Your task to perform on an android device: Go to privacy settings Image 0: 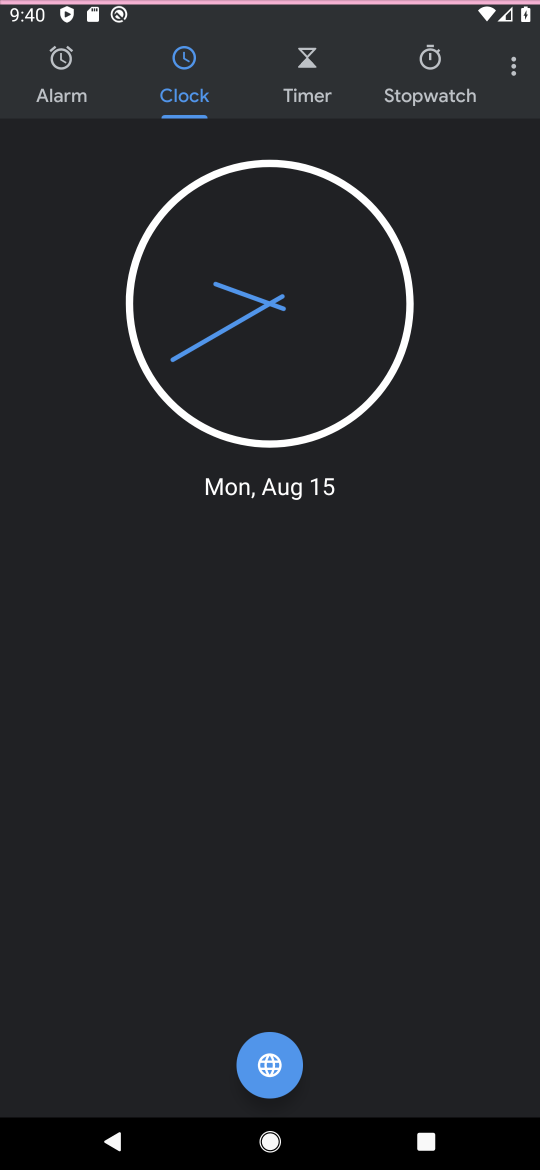
Step 0: press home button
Your task to perform on an android device: Go to privacy settings Image 1: 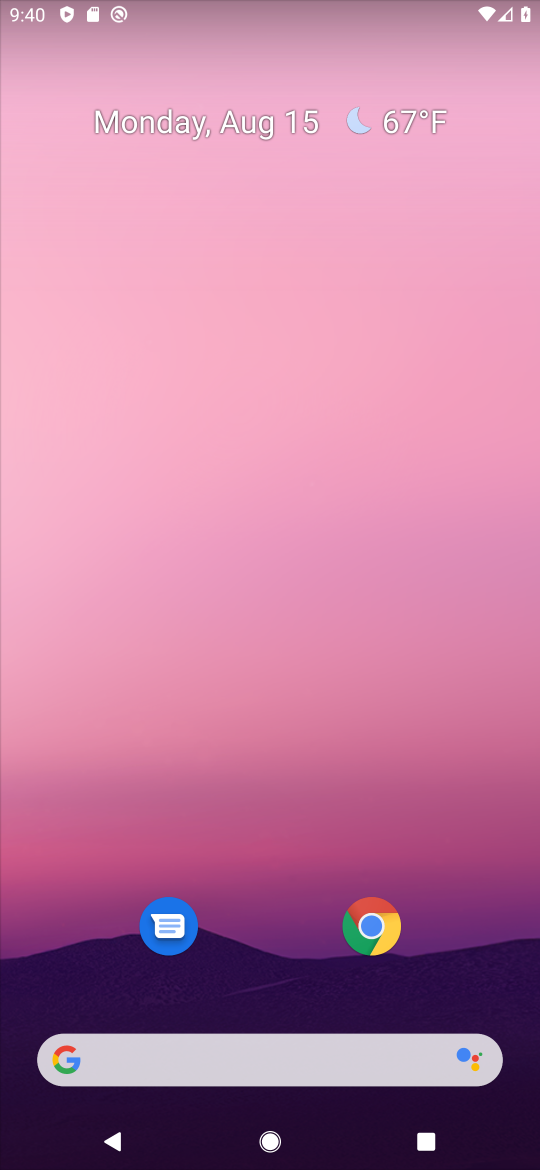
Step 1: press home button
Your task to perform on an android device: Go to privacy settings Image 2: 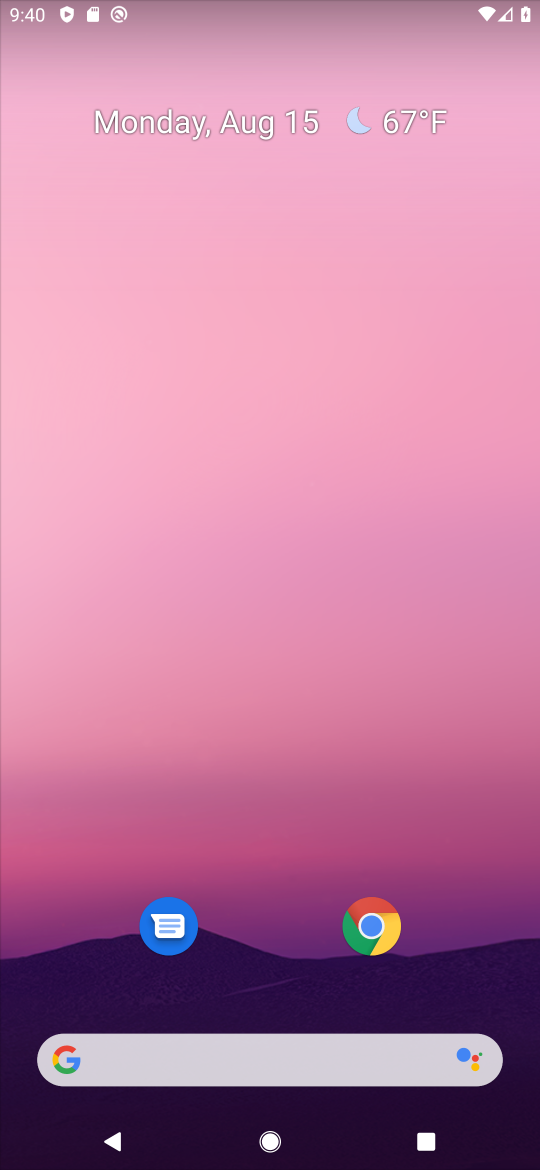
Step 2: drag from (265, 942) to (82, 42)
Your task to perform on an android device: Go to privacy settings Image 3: 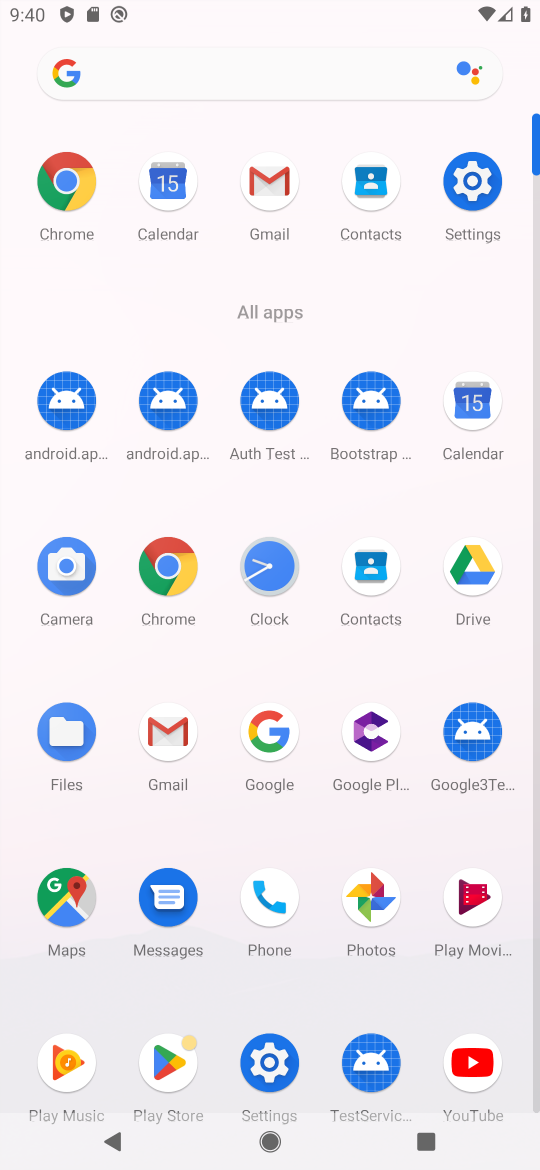
Step 3: click (470, 177)
Your task to perform on an android device: Go to privacy settings Image 4: 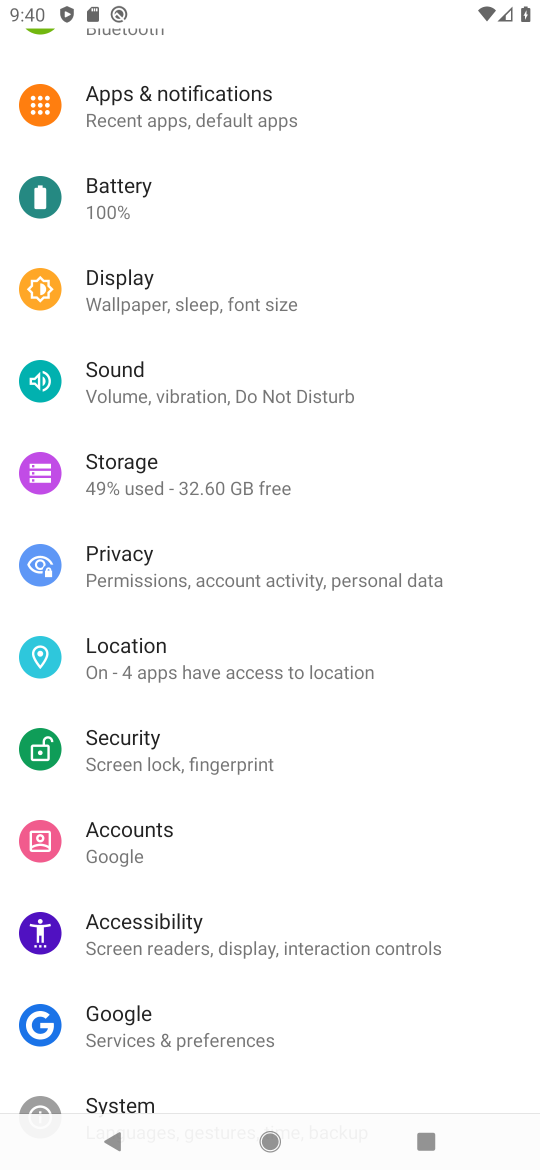
Step 4: click (263, 556)
Your task to perform on an android device: Go to privacy settings Image 5: 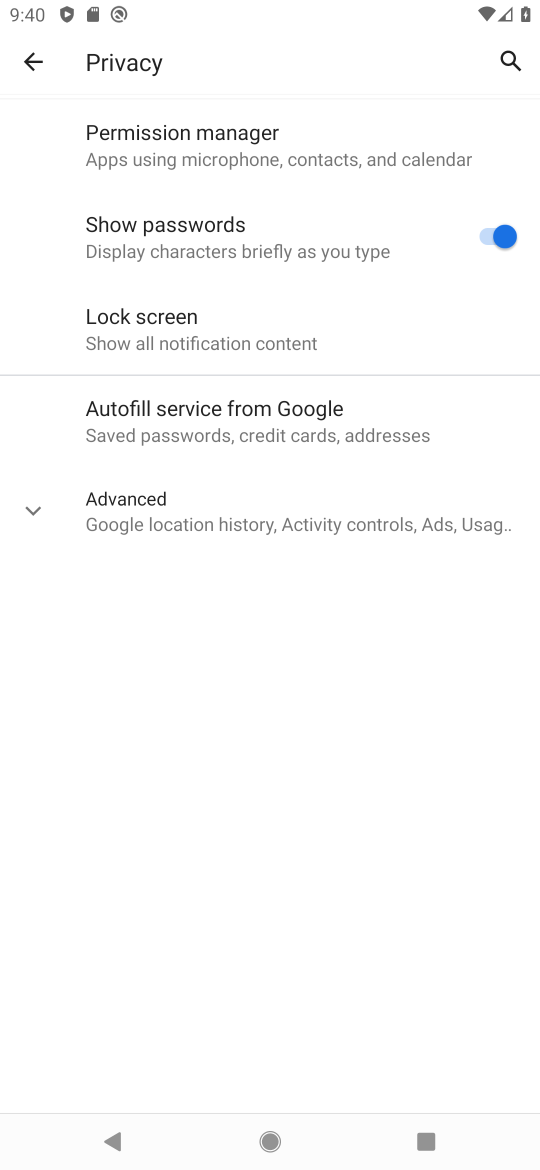
Step 5: task complete